Your task to perform on an android device: Go to Google Image 0: 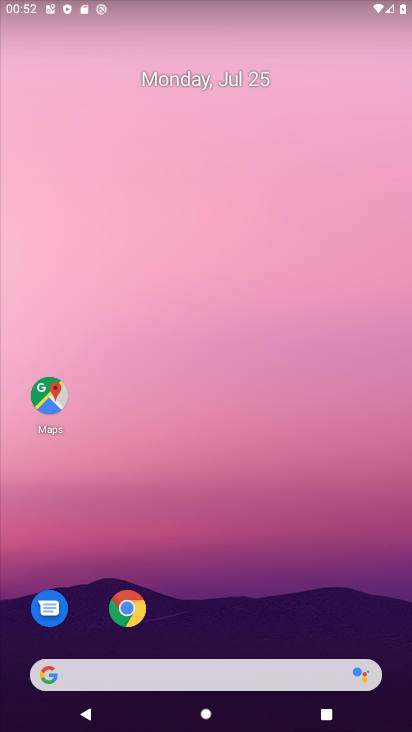
Step 0: drag from (208, 655) to (294, 20)
Your task to perform on an android device: Go to Google Image 1: 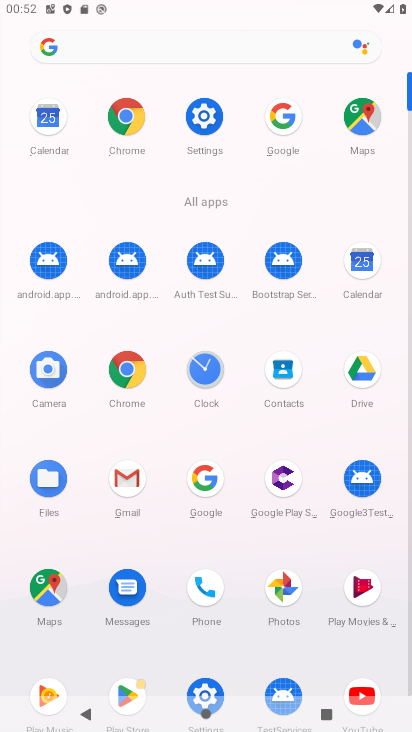
Step 1: click (214, 480)
Your task to perform on an android device: Go to Google Image 2: 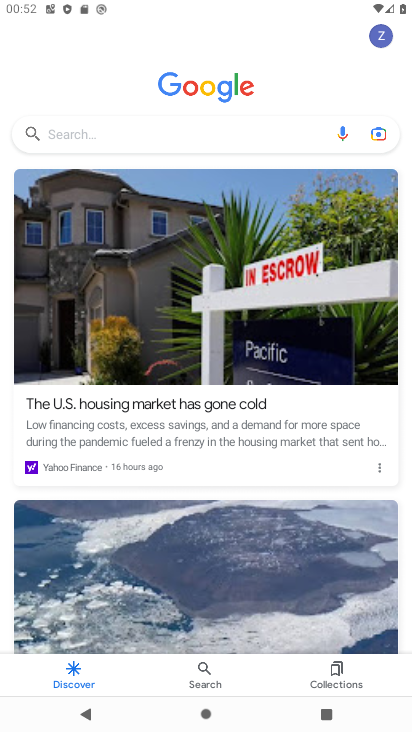
Step 2: task complete